Your task to perform on an android device: turn off priority inbox in the gmail app Image 0: 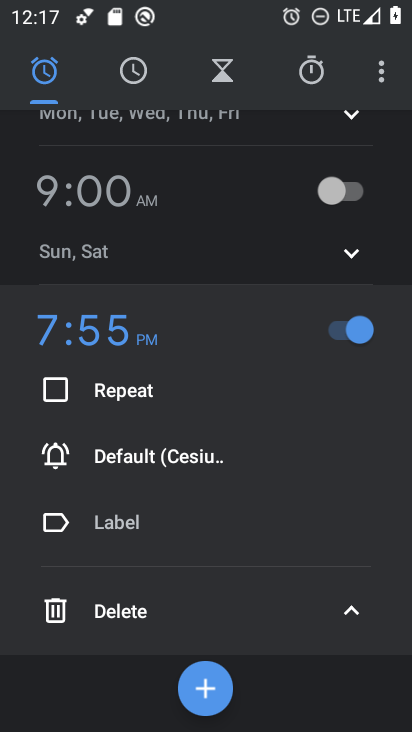
Step 0: press home button
Your task to perform on an android device: turn off priority inbox in the gmail app Image 1: 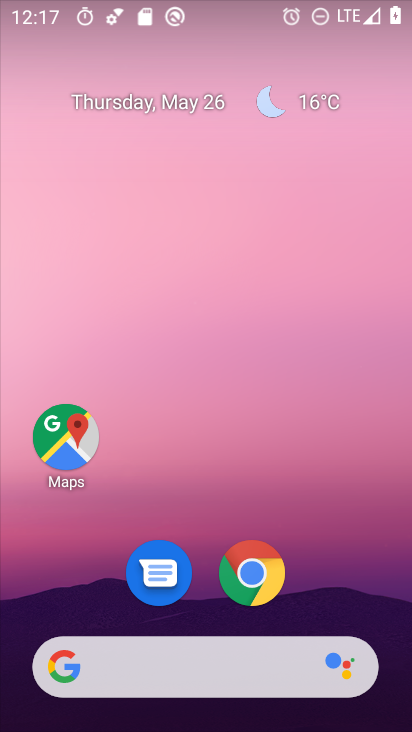
Step 1: drag from (349, 619) to (367, 8)
Your task to perform on an android device: turn off priority inbox in the gmail app Image 2: 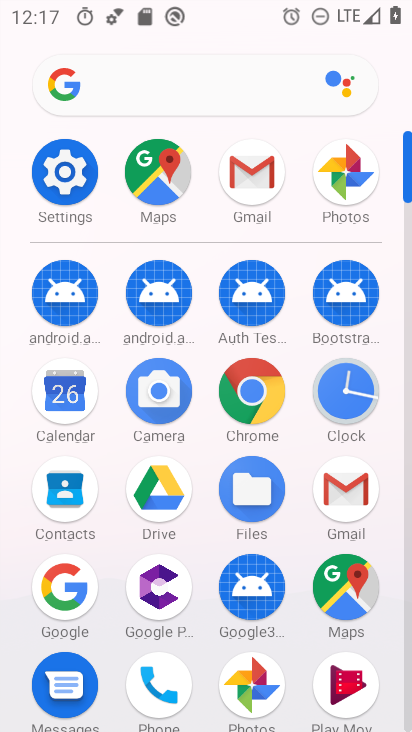
Step 2: click (245, 174)
Your task to perform on an android device: turn off priority inbox in the gmail app Image 3: 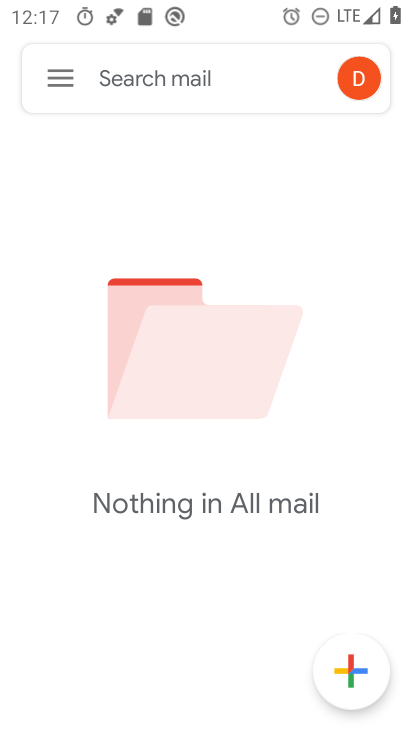
Step 3: click (61, 82)
Your task to perform on an android device: turn off priority inbox in the gmail app Image 4: 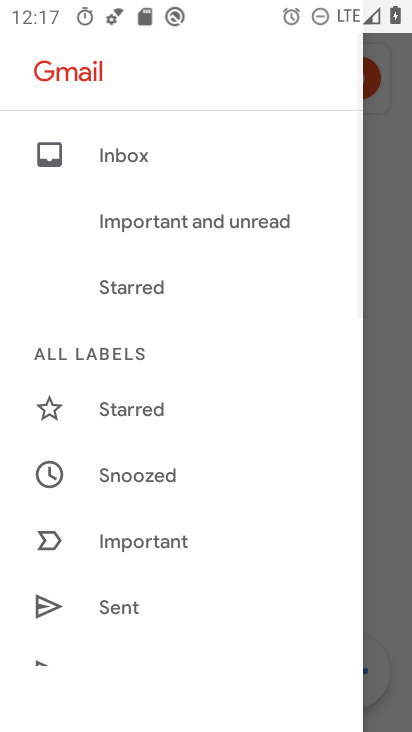
Step 4: drag from (222, 538) to (207, 140)
Your task to perform on an android device: turn off priority inbox in the gmail app Image 5: 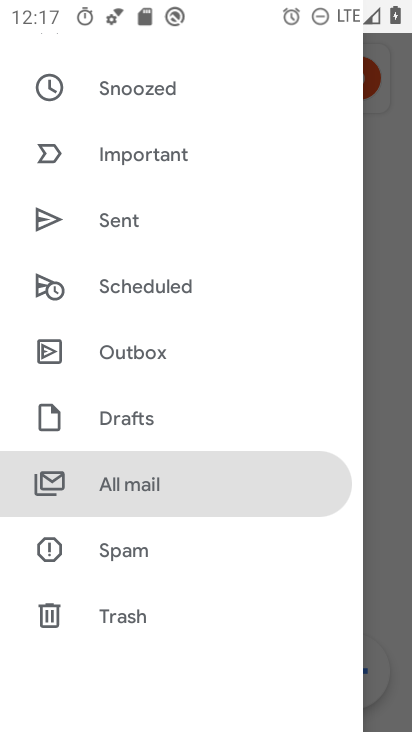
Step 5: drag from (242, 552) to (233, 213)
Your task to perform on an android device: turn off priority inbox in the gmail app Image 6: 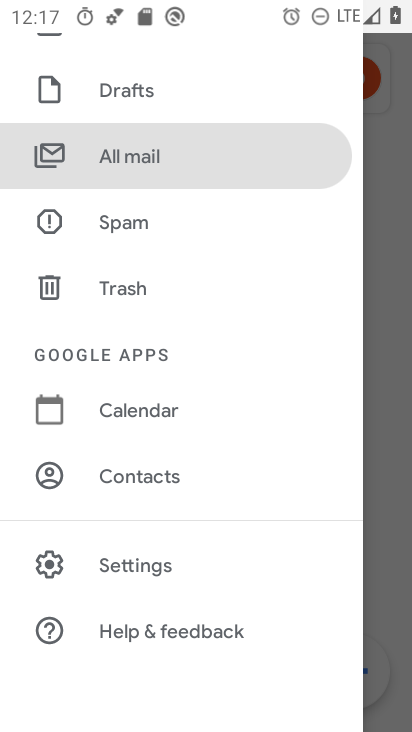
Step 6: click (122, 564)
Your task to perform on an android device: turn off priority inbox in the gmail app Image 7: 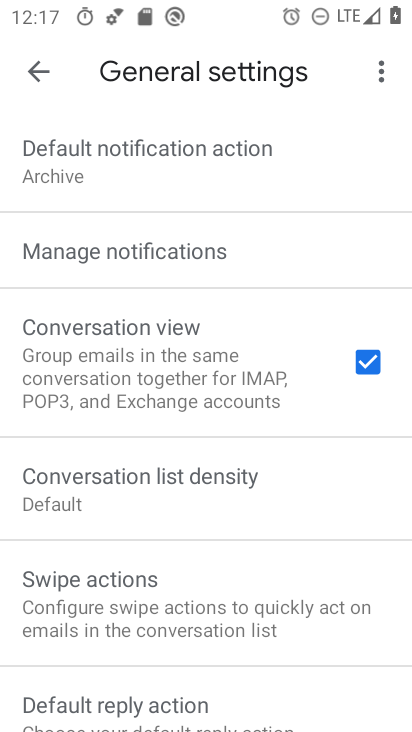
Step 7: click (40, 70)
Your task to perform on an android device: turn off priority inbox in the gmail app Image 8: 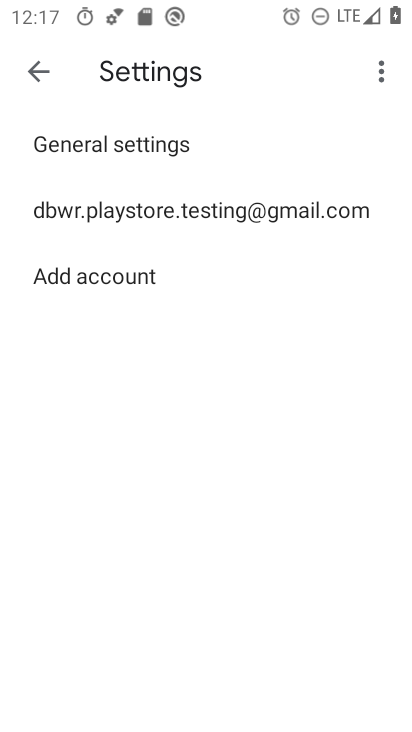
Step 8: click (105, 214)
Your task to perform on an android device: turn off priority inbox in the gmail app Image 9: 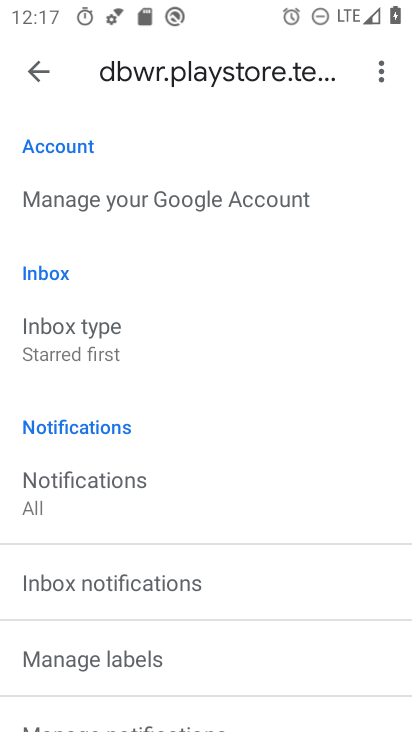
Step 9: click (82, 344)
Your task to perform on an android device: turn off priority inbox in the gmail app Image 10: 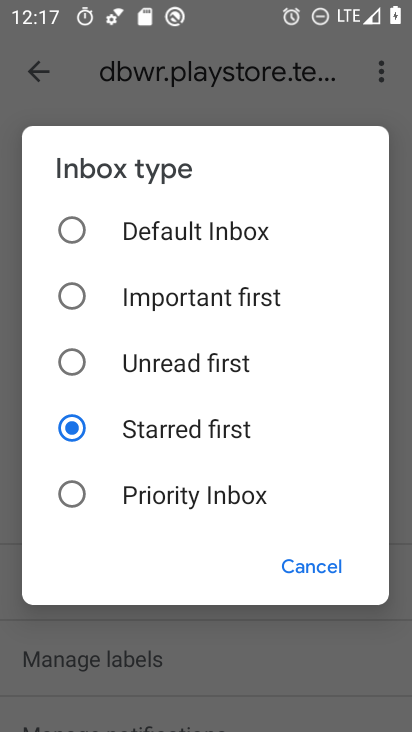
Step 10: task complete